Your task to perform on an android device: Toggle the flashlight Image 0: 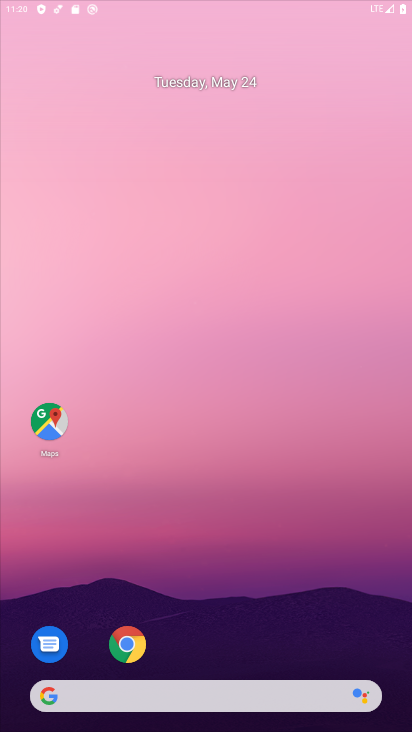
Step 0: click (209, 16)
Your task to perform on an android device: Toggle the flashlight Image 1: 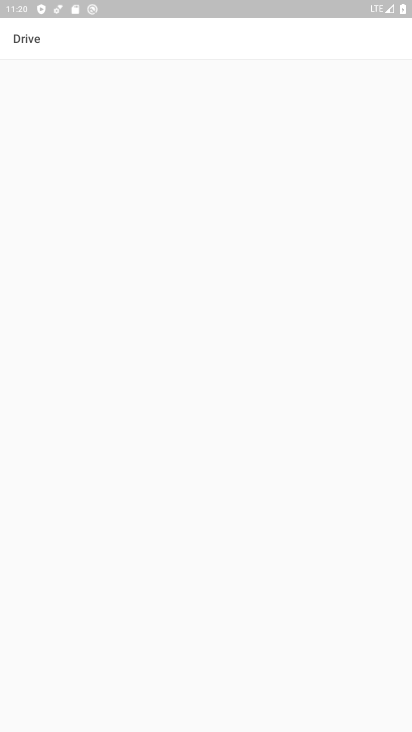
Step 1: press home button
Your task to perform on an android device: Toggle the flashlight Image 2: 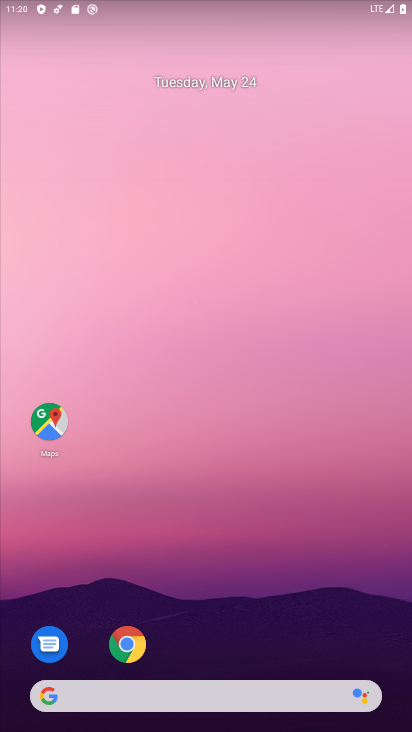
Step 2: drag from (300, 488) to (234, 125)
Your task to perform on an android device: Toggle the flashlight Image 3: 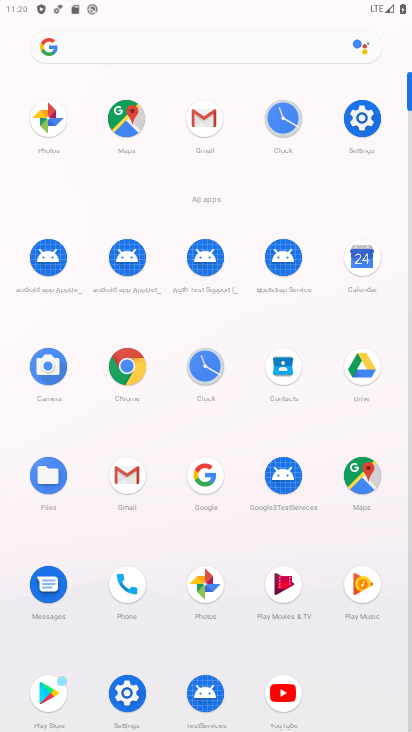
Step 3: click (362, 119)
Your task to perform on an android device: Toggle the flashlight Image 4: 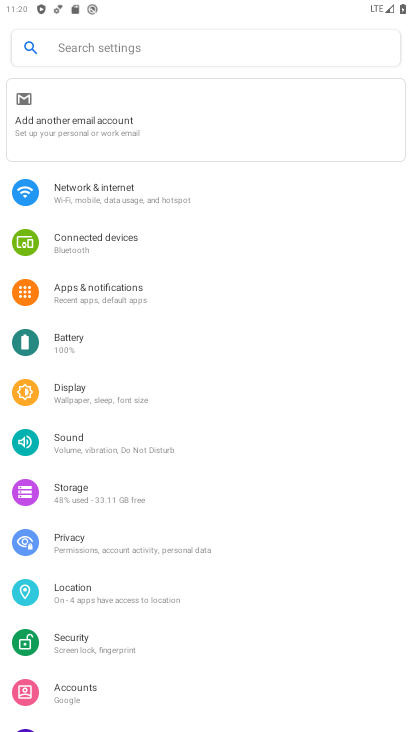
Step 4: click (96, 253)
Your task to perform on an android device: Toggle the flashlight Image 5: 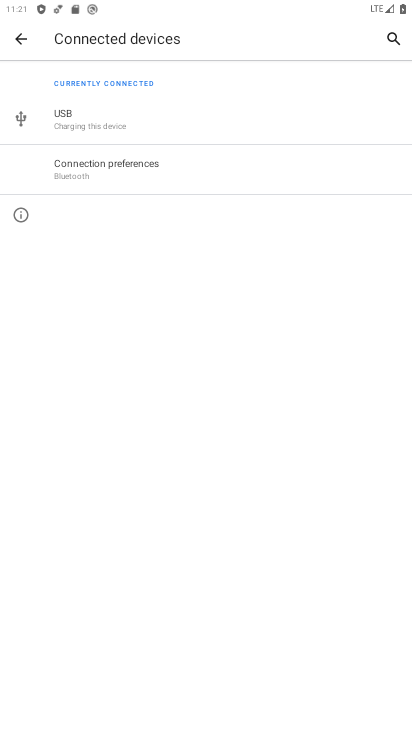
Step 5: click (17, 29)
Your task to perform on an android device: Toggle the flashlight Image 6: 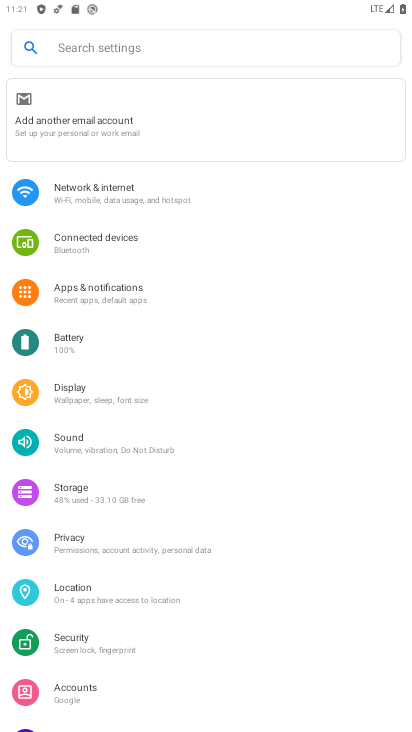
Step 6: click (97, 233)
Your task to perform on an android device: Toggle the flashlight Image 7: 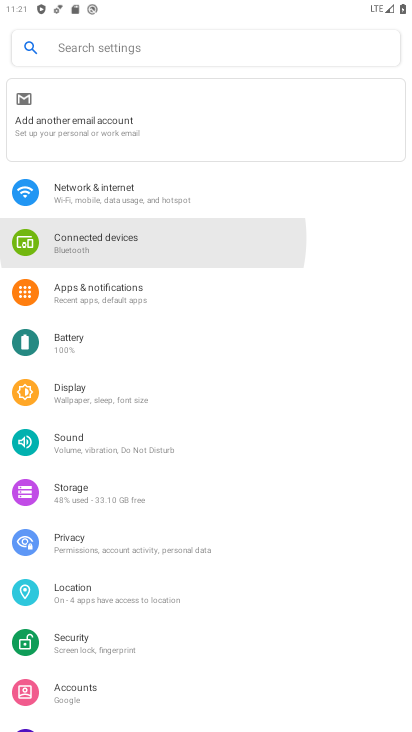
Step 7: click (97, 233)
Your task to perform on an android device: Toggle the flashlight Image 8: 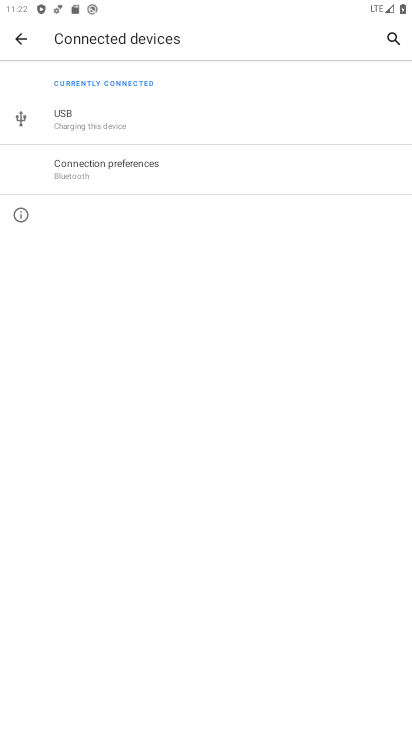
Step 8: task complete